Your task to perform on an android device: check google app version Image 0: 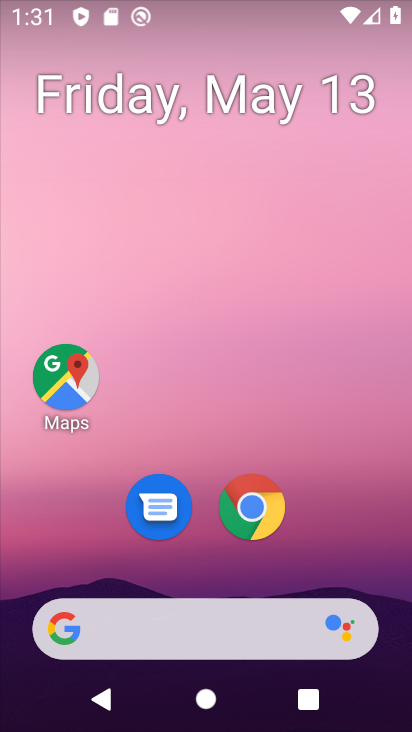
Step 0: drag from (200, 604) to (214, 14)
Your task to perform on an android device: check google app version Image 1: 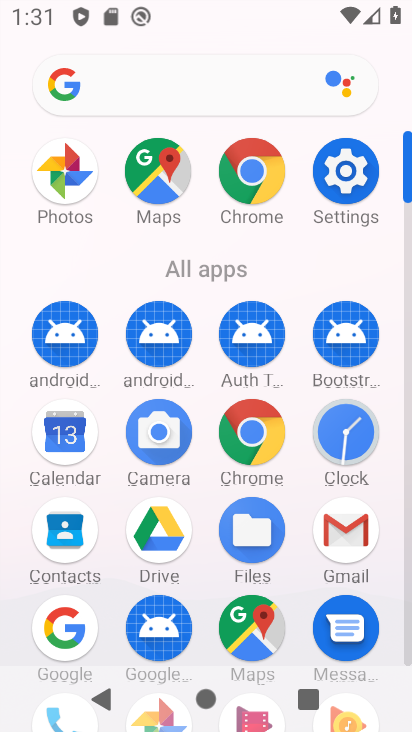
Step 1: click (77, 610)
Your task to perform on an android device: check google app version Image 2: 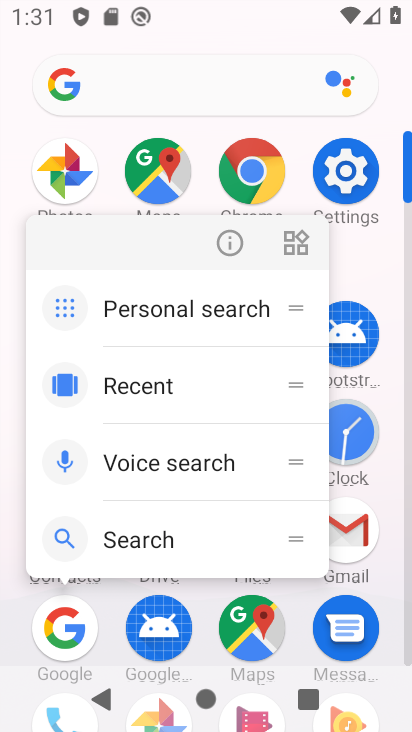
Step 2: click (236, 233)
Your task to perform on an android device: check google app version Image 3: 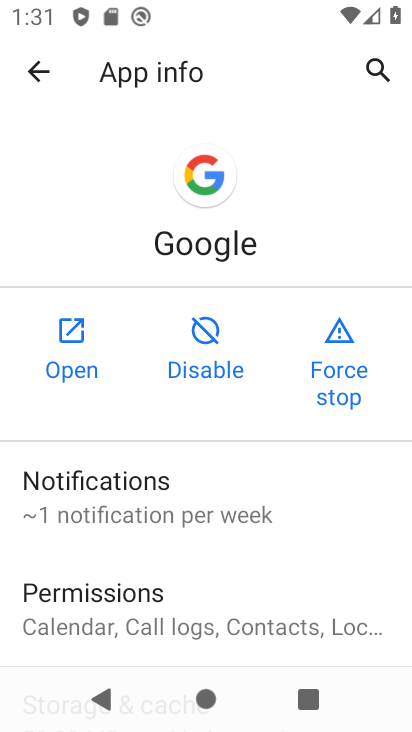
Step 3: drag from (276, 527) to (247, 11)
Your task to perform on an android device: check google app version Image 4: 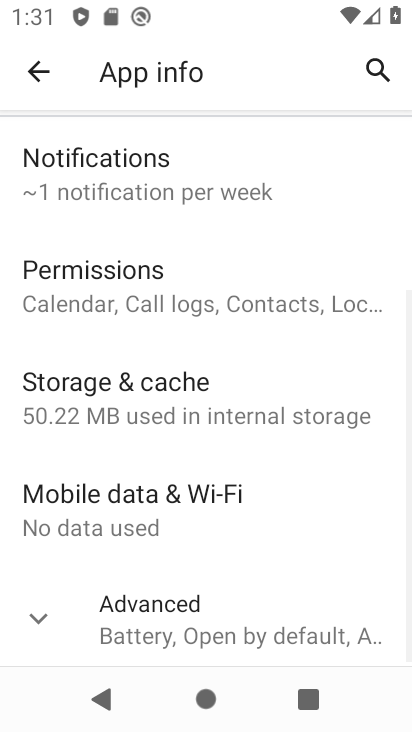
Step 4: click (204, 597)
Your task to perform on an android device: check google app version Image 5: 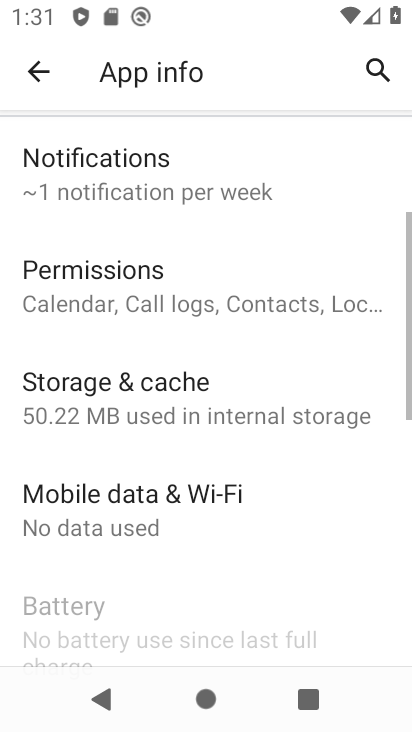
Step 5: task complete